Your task to perform on an android device: Open internet settings Image 0: 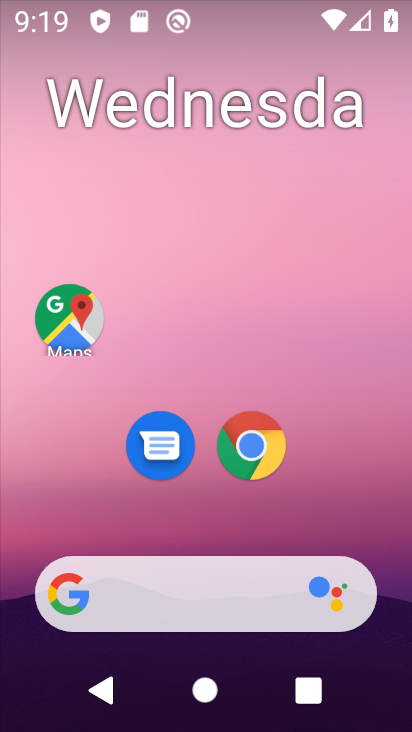
Step 0: drag from (217, 522) to (344, 44)
Your task to perform on an android device: Open internet settings Image 1: 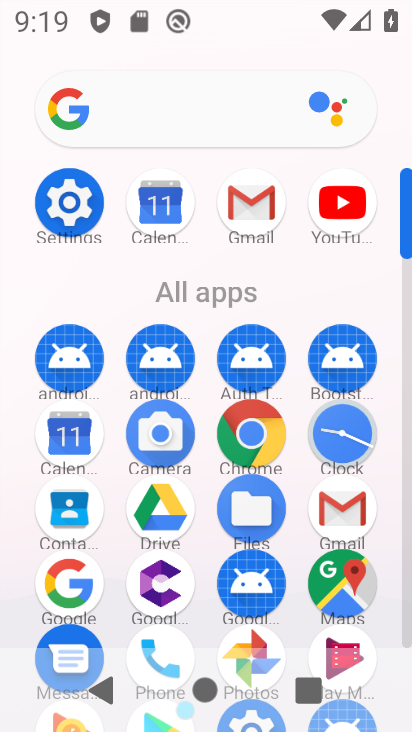
Step 1: click (79, 191)
Your task to perform on an android device: Open internet settings Image 2: 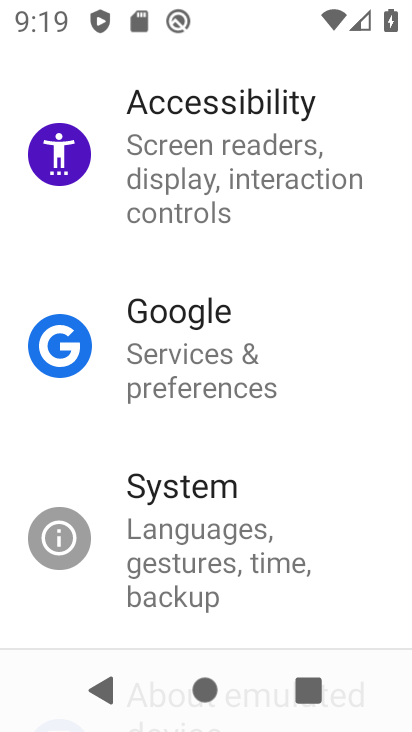
Step 2: drag from (227, 139) to (225, 662)
Your task to perform on an android device: Open internet settings Image 3: 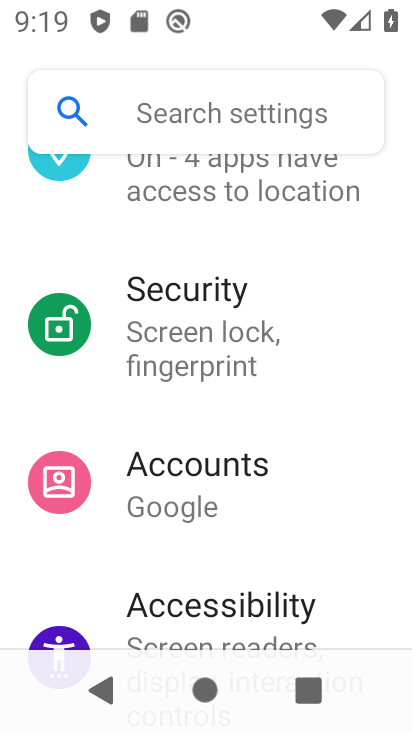
Step 3: drag from (197, 229) to (176, 628)
Your task to perform on an android device: Open internet settings Image 4: 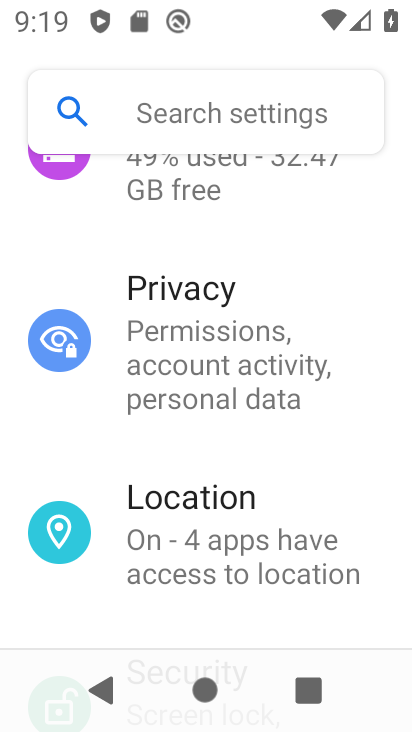
Step 4: drag from (187, 265) to (187, 604)
Your task to perform on an android device: Open internet settings Image 5: 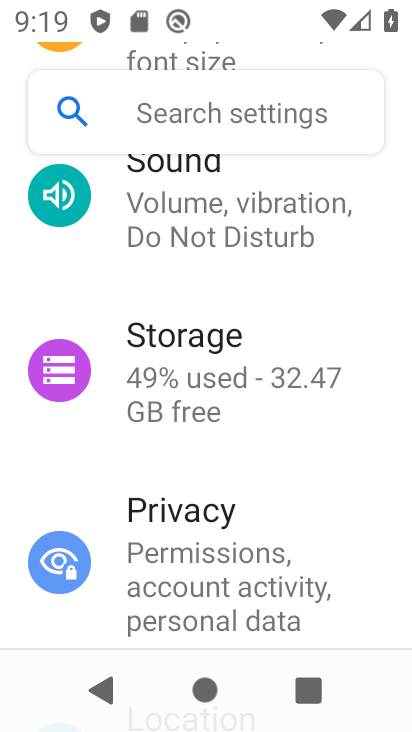
Step 5: drag from (198, 205) to (199, 589)
Your task to perform on an android device: Open internet settings Image 6: 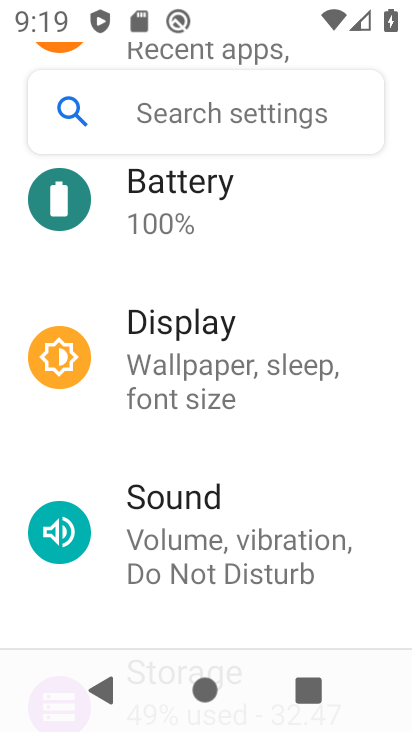
Step 6: drag from (223, 231) to (211, 588)
Your task to perform on an android device: Open internet settings Image 7: 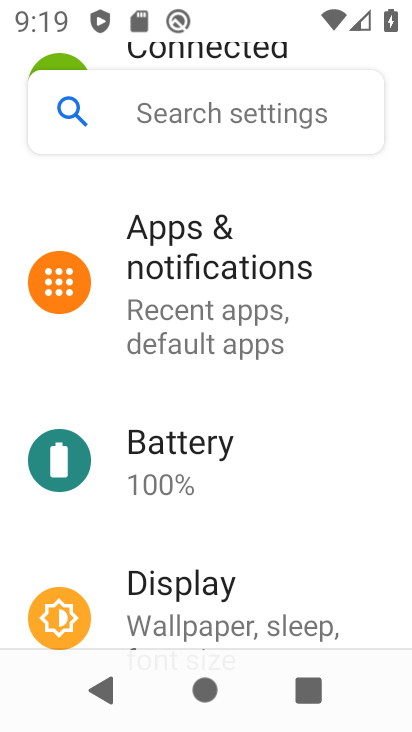
Step 7: drag from (201, 224) to (201, 567)
Your task to perform on an android device: Open internet settings Image 8: 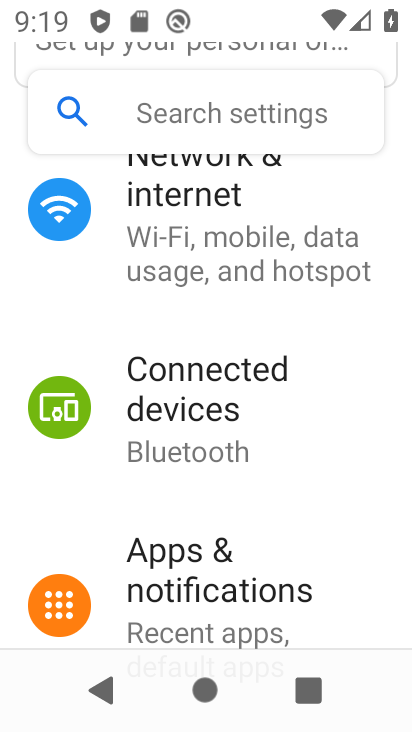
Step 8: click (177, 197)
Your task to perform on an android device: Open internet settings Image 9: 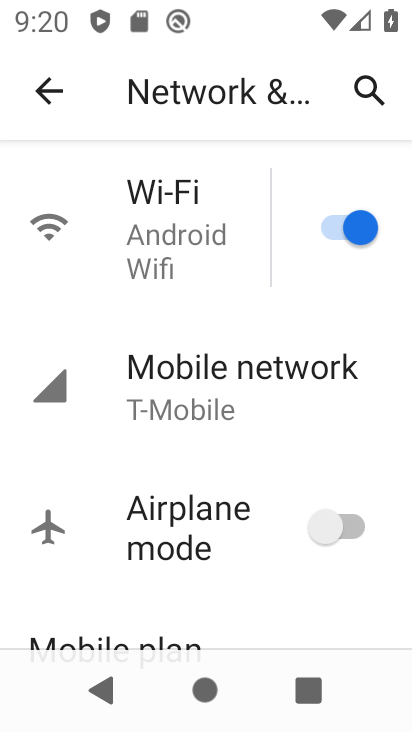
Step 9: click (191, 391)
Your task to perform on an android device: Open internet settings Image 10: 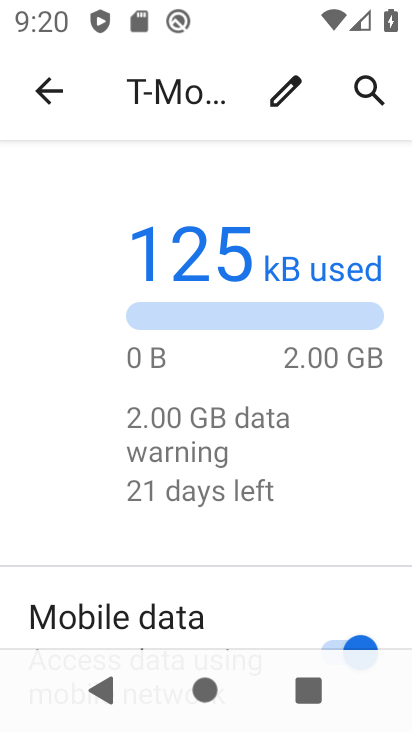
Step 10: task complete